Your task to perform on an android device: Open display settings Image 0: 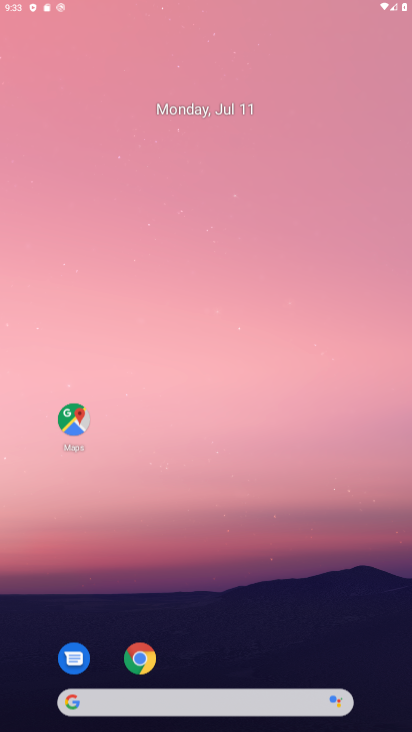
Step 0: drag from (274, 587) to (336, 0)
Your task to perform on an android device: Open display settings Image 1: 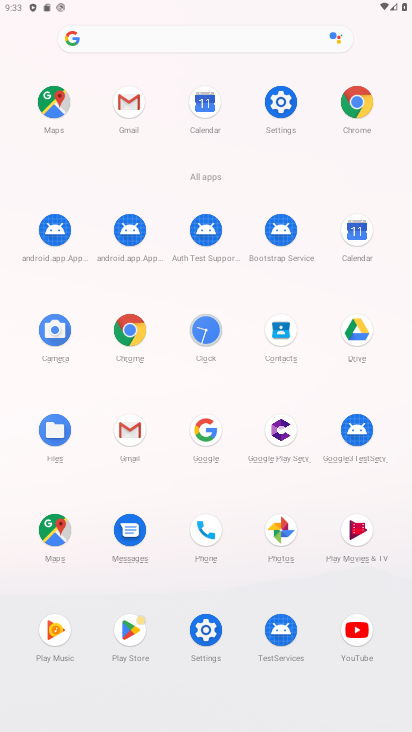
Step 1: click (281, 100)
Your task to perform on an android device: Open display settings Image 2: 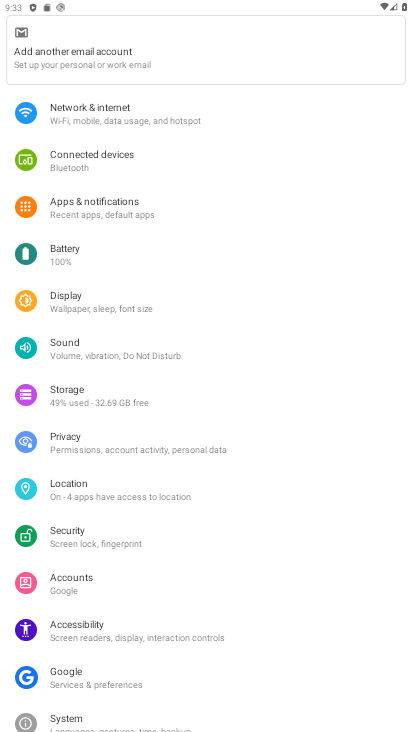
Step 2: click (96, 302)
Your task to perform on an android device: Open display settings Image 3: 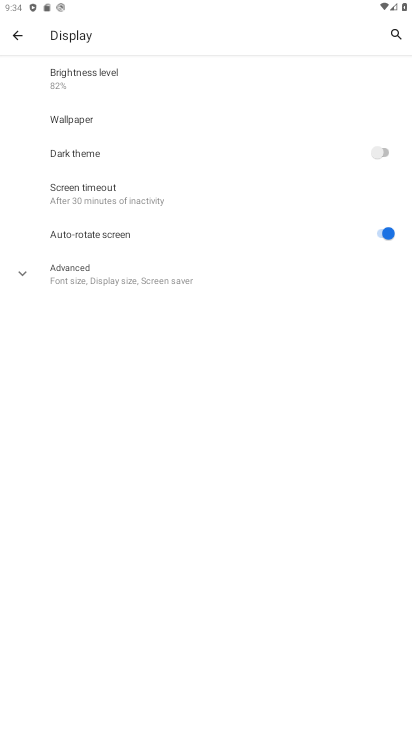
Step 3: task complete